Your task to perform on an android device: turn notification dots on Image 0: 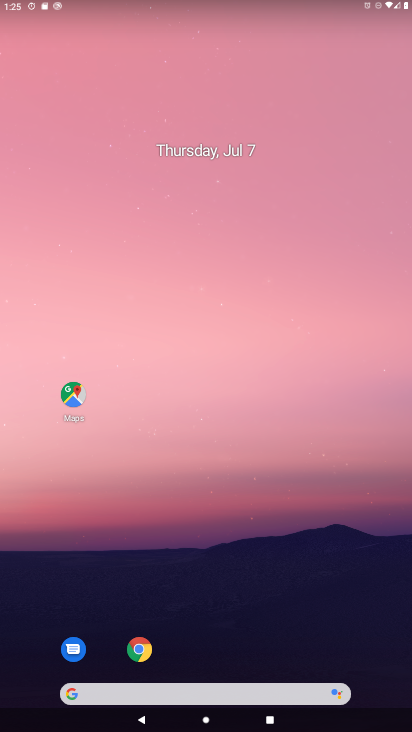
Step 0: drag from (222, 668) to (153, 124)
Your task to perform on an android device: turn notification dots on Image 1: 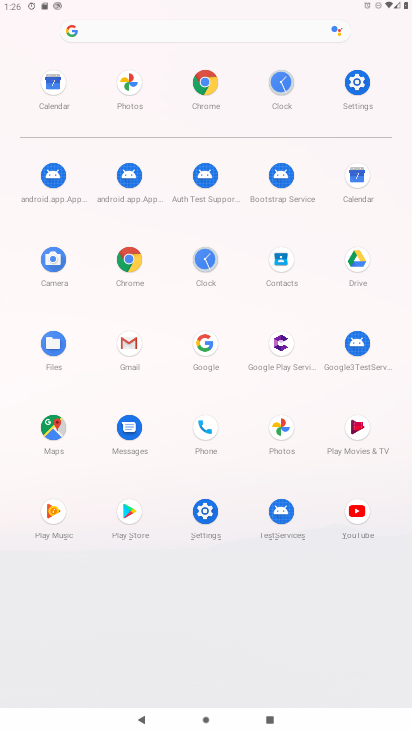
Step 1: click (195, 515)
Your task to perform on an android device: turn notification dots on Image 2: 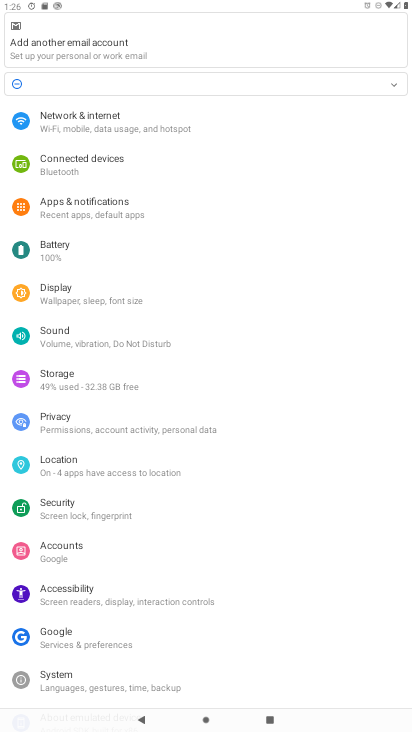
Step 2: click (92, 190)
Your task to perform on an android device: turn notification dots on Image 3: 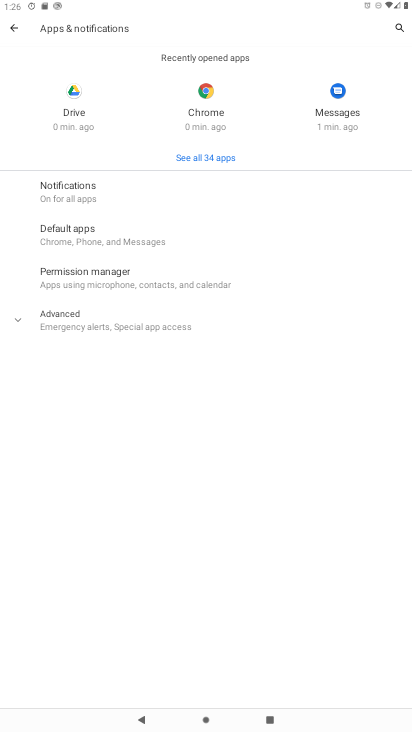
Step 3: click (70, 302)
Your task to perform on an android device: turn notification dots on Image 4: 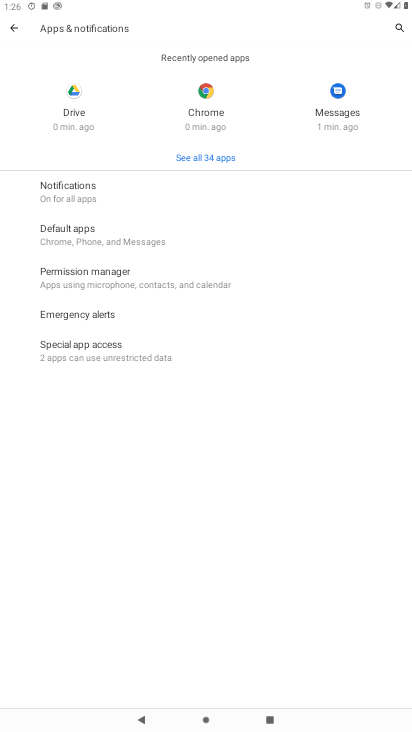
Step 4: click (78, 188)
Your task to perform on an android device: turn notification dots on Image 5: 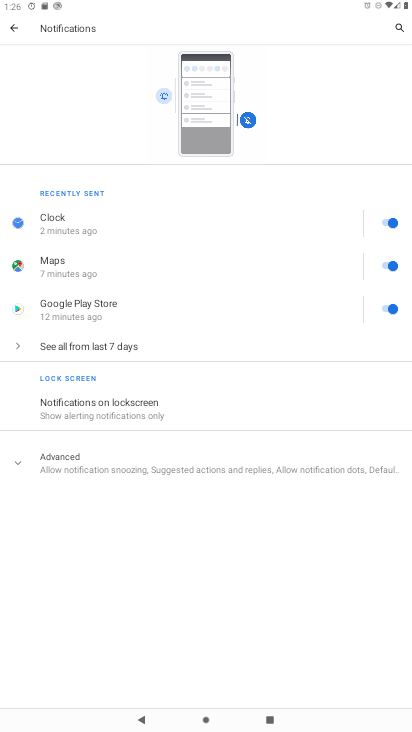
Step 5: click (94, 466)
Your task to perform on an android device: turn notification dots on Image 6: 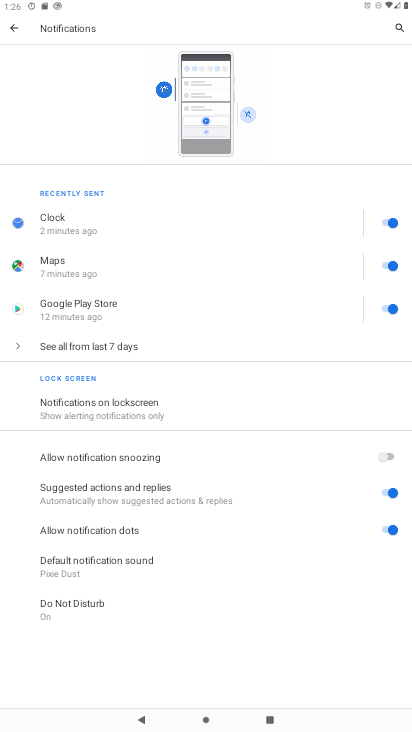
Step 6: task complete